Your task to perform on an android device: set default search engine in the chrome app Image 0: 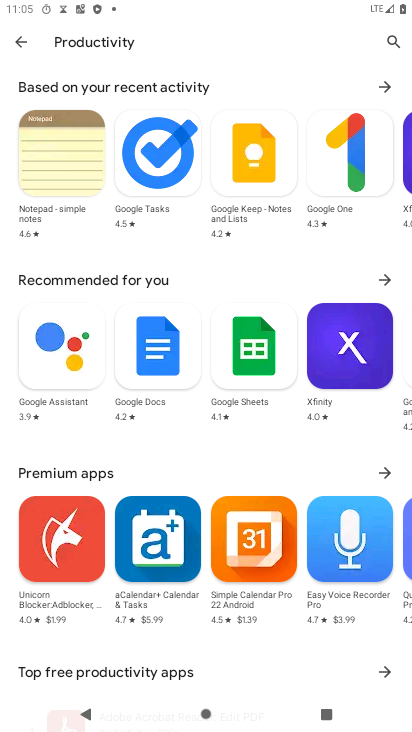
Step 0: press home button
Your task to perform on an android device: set default search engine in the chrome app Image 1: 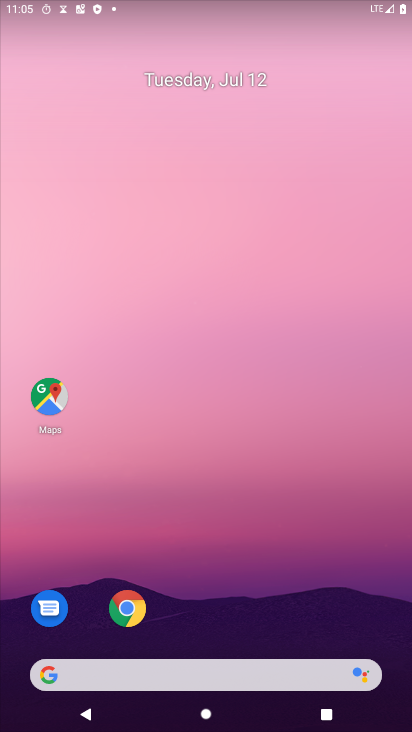
Step 1: click (135, 618)
Your task to perform on an android device: set default search engine in the chrome app Image 2: 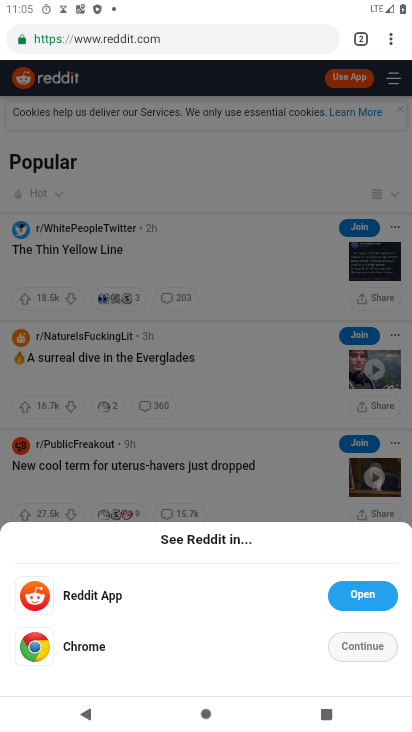
Step 2: click (388, 43)
Your task to perform on an android device: set default search engine in the chrome app Image 3: 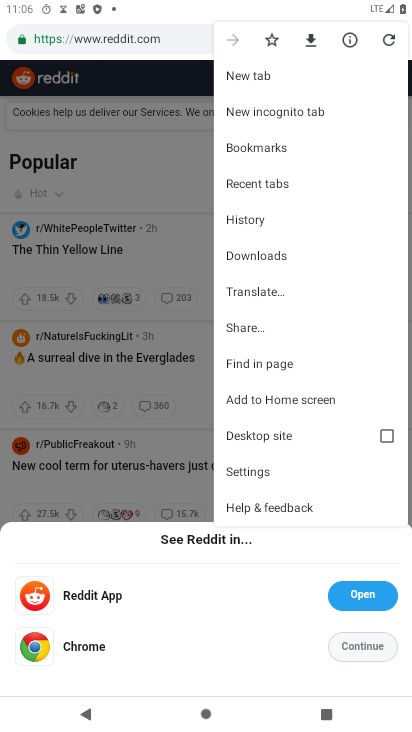
Step 3: click (264, 466)
Your task to perform on an android device: set default search engine in the chrome app Image 4: 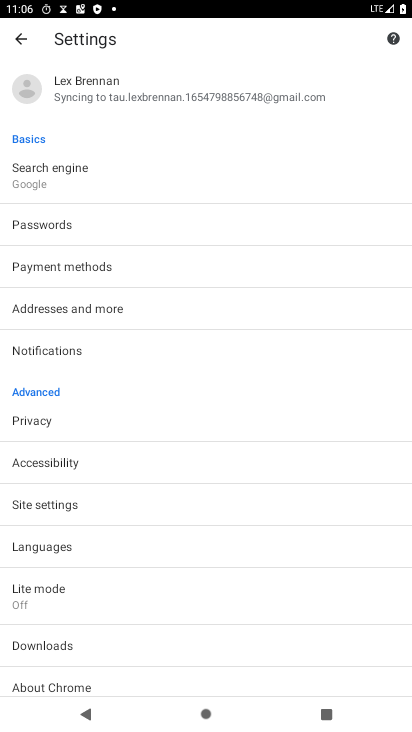
Step 4: click (84, 174)
Your task to perform on an android device: set default search engine in the chrome app Image 5: 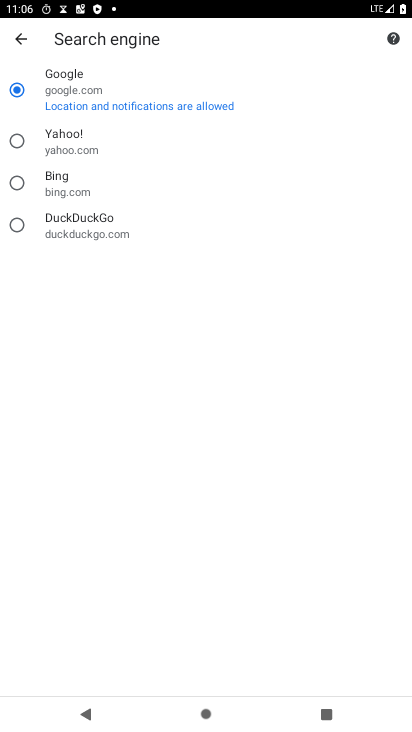
Step 5: click (91, 153)
Your task to perform on an android device: set default search engine in the chrome app Image 6: 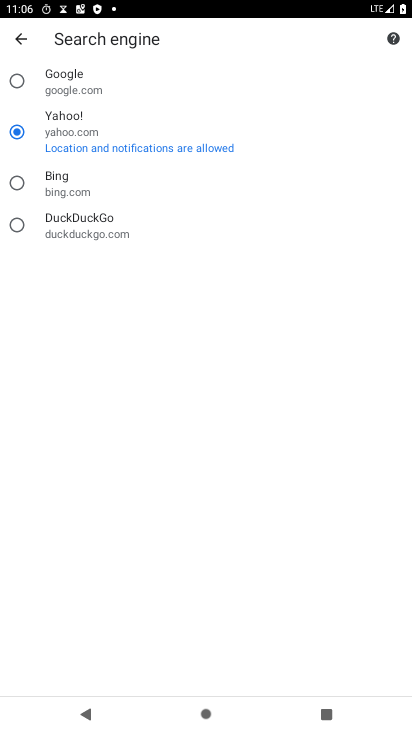
Step 6: task complete